Your task to perform on an android device: read, delete, or share a saved page in the chrome app Image 0: 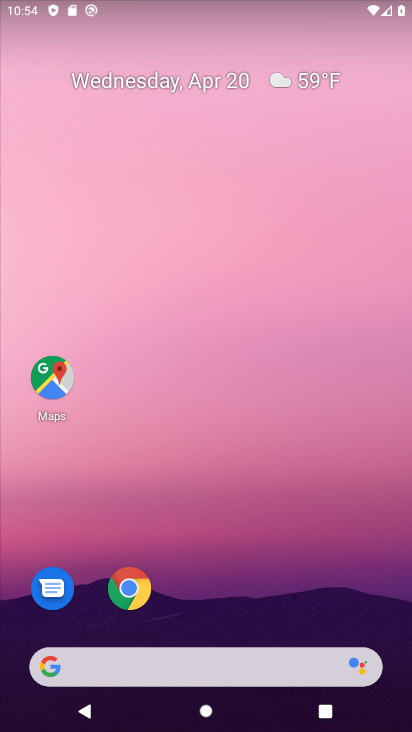
Step 0: click (125, 589)
Your task to perform on an android device: read, delete, or share a saved page in the chrome app Image 1: 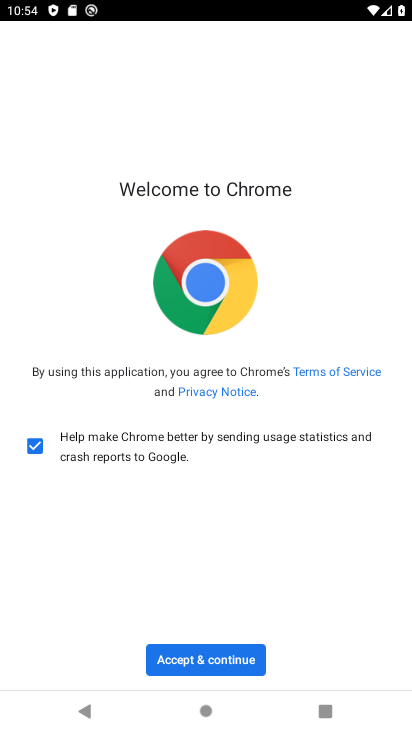
Step 1: click (219, 666)
Your task to perform on an android device: read, delete, or share a saved page in the chrome app Image 2: 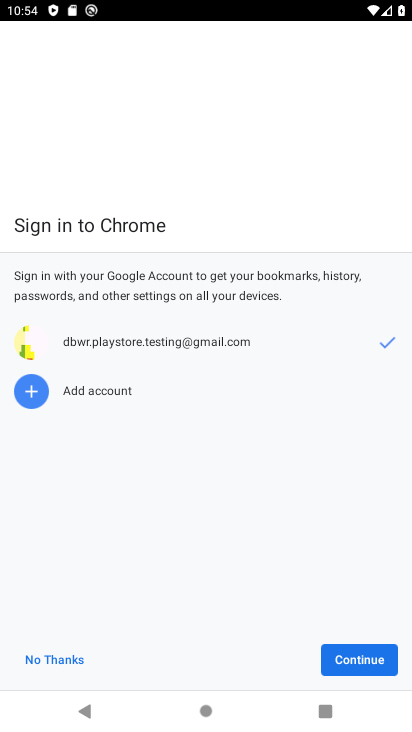
Step 2: click (369, 654)
Your task to perform on an android device: read, delete, or share a saved page in the chrome app Image 3: 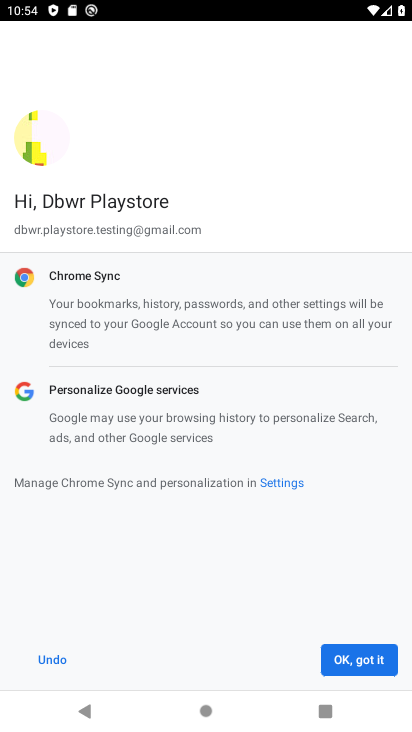
Step 3: click (347, 657)
Your task to perform on an android device: read, delete, or share a saved page in the chrome app Image 4: 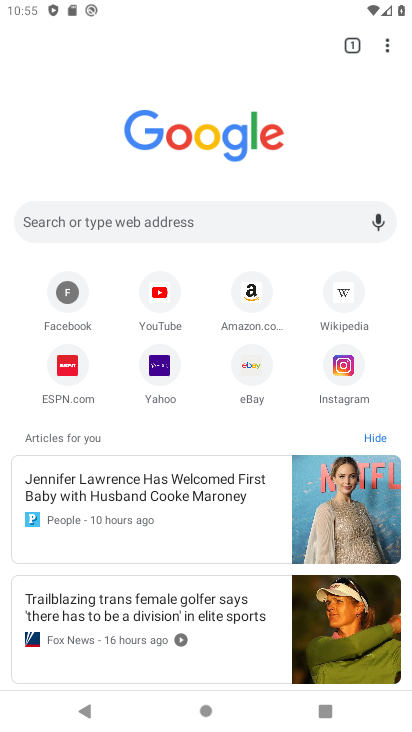
Step 4: click (387, 46)
Your task to perform on an android device: read, delete, or share a saved page in the chrome app Image 5: 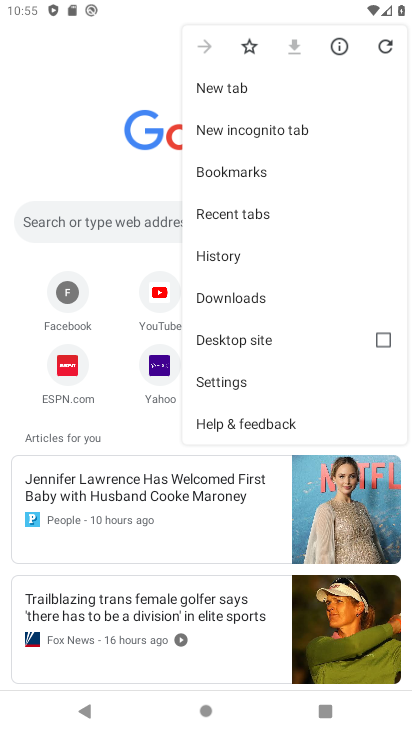
Step 5: click (227, 379)
Your task to perform on an android device: read, delete, or share a saved page in the chrome app Image 6: 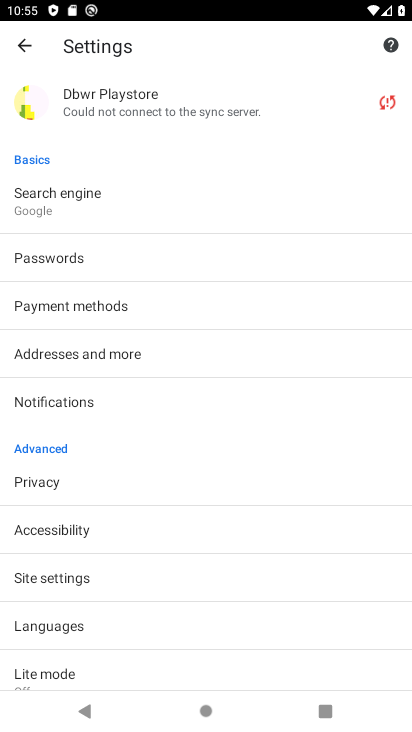
Step 6: click (25, 46)
Your task to perform on an android device: read, delete, or share a saved page in the chrome app Image 7: 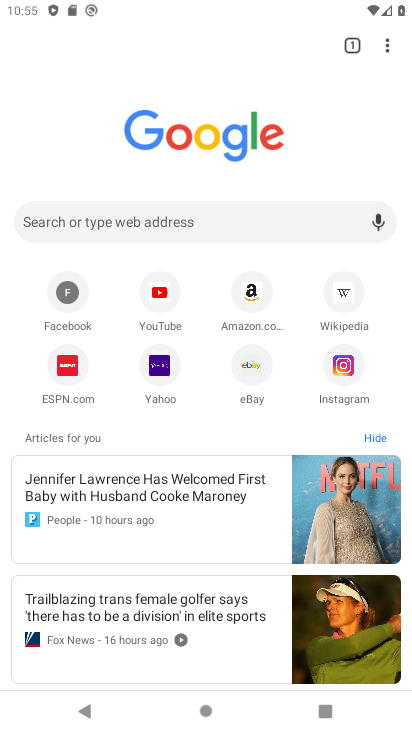
Step 7: click (386, 43)
Your task to perform on an android device: read, delete, or share a saved page in the chrome app Image 8: 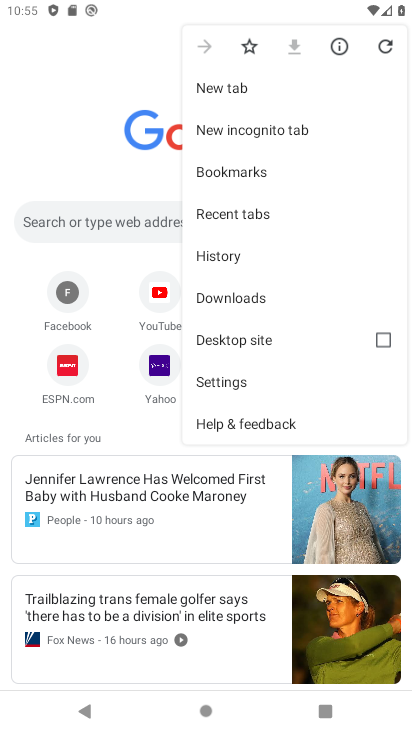
Step 8: click (241, 296)
Your task to perform on an android device: read, delete, or share a saved page in the chrome app Image 9: 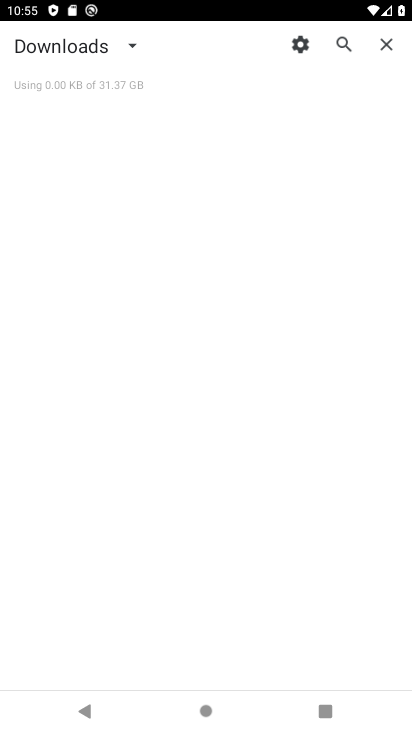
Step 9: click (130, 43)
Your task to perform on an android device: read, delete, or share a saved page in the chrome app Image 10: 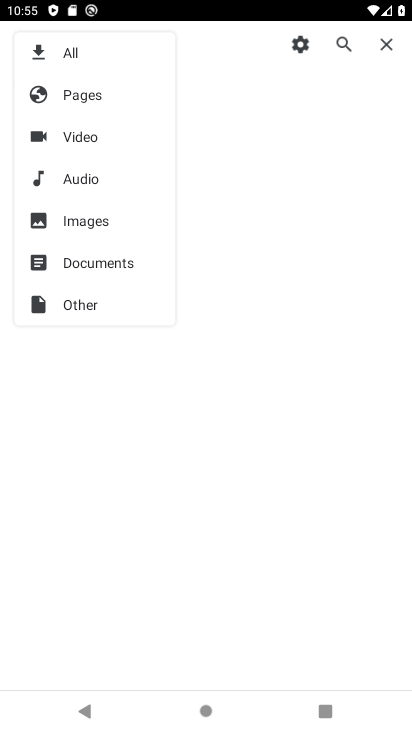
Step 10: click (76, 95)
Your task to perform on an android device: read, delete, or share a saved page in the chrome app Image 11: 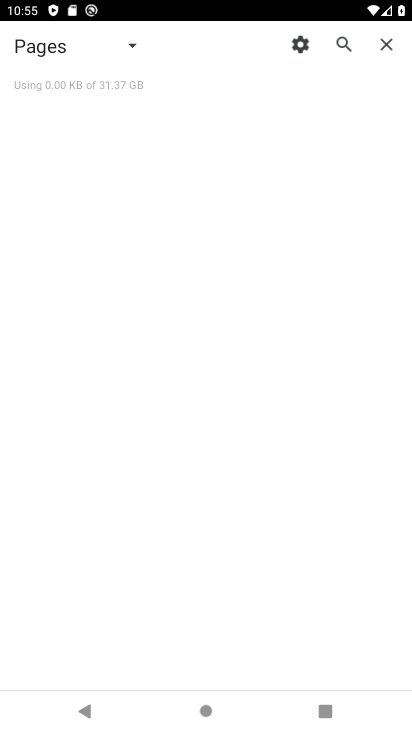
Step 11: task complete